Your task to perform on an android device: remove spam from my inbox in the gmail app Image 0: 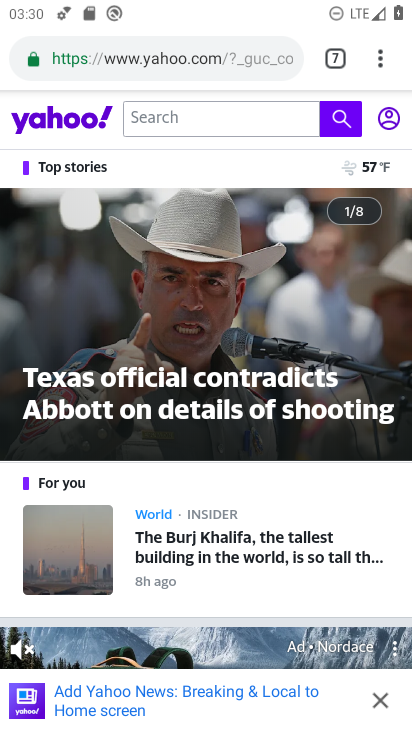
Step 0: press home button
Your task to perform on an android device: remove spam from my inbox in the gmail app Image 1: 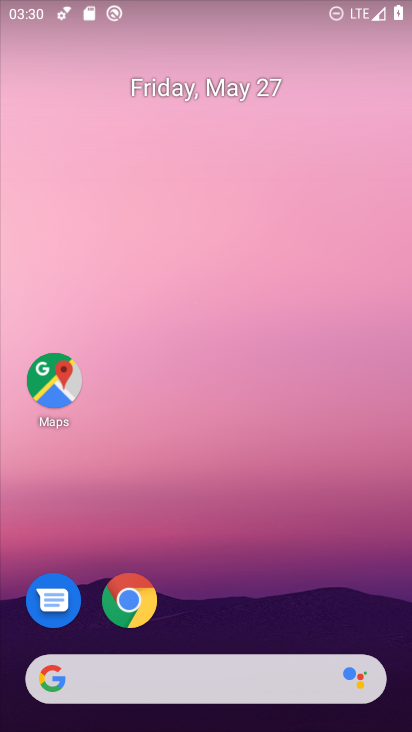
Step 1: drag from (231, 692) to (231, 169)
Your task to perform on an android device: remove spam from my inbox in the gmail app Image 2: 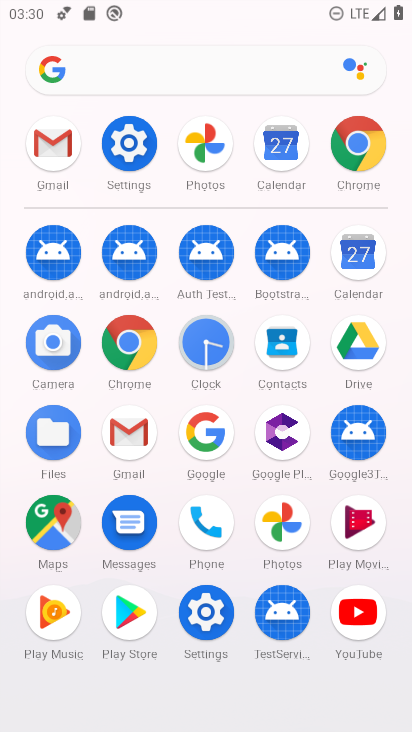
Step 2: click (120, 426)
Your task to perform on an android device: remove spam from my inbox in the gmail app Image 3: 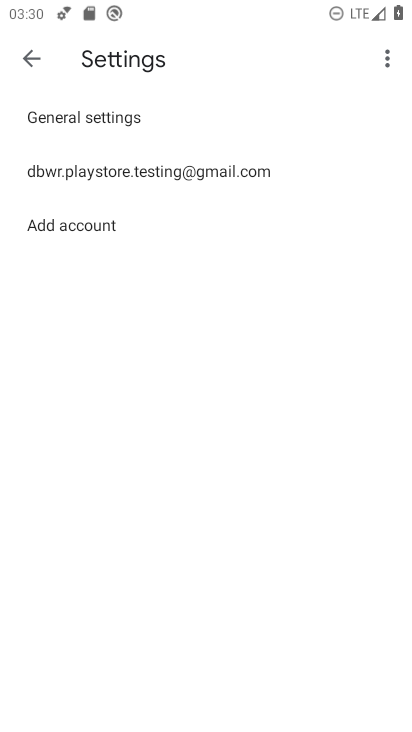
Step 3: click (28, 59)
Your task to perform on an android device: remove spam from my inbox in the gmail app Image 4: 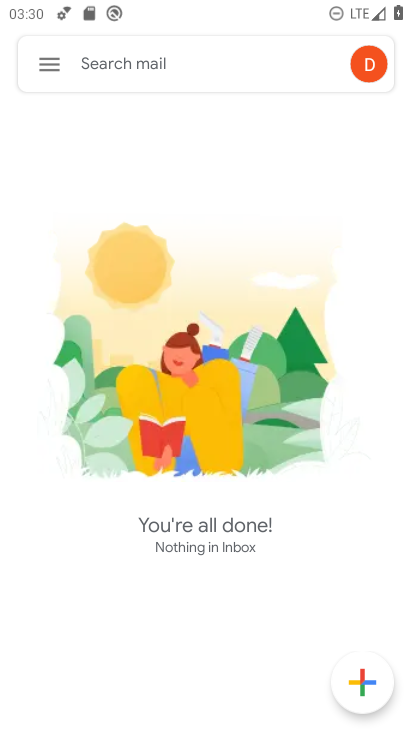
Step 4: task complete